Your task to perform on an android device: toggle pop-ups in chrome Image 0: 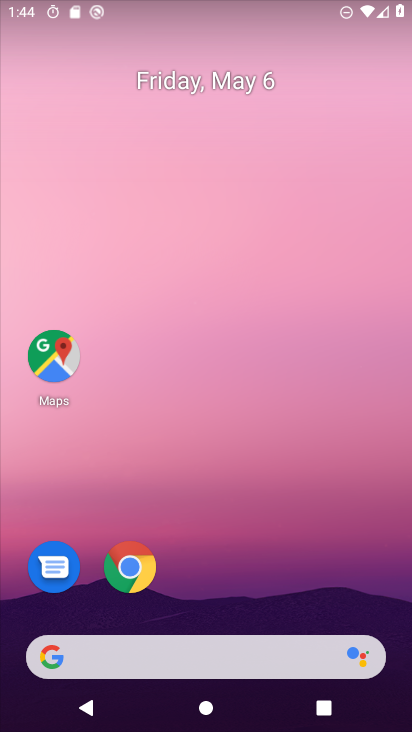
Step 0: click (138, 573)
Your task to perform on an android device: toggle pop-ups in chrome Image 1: 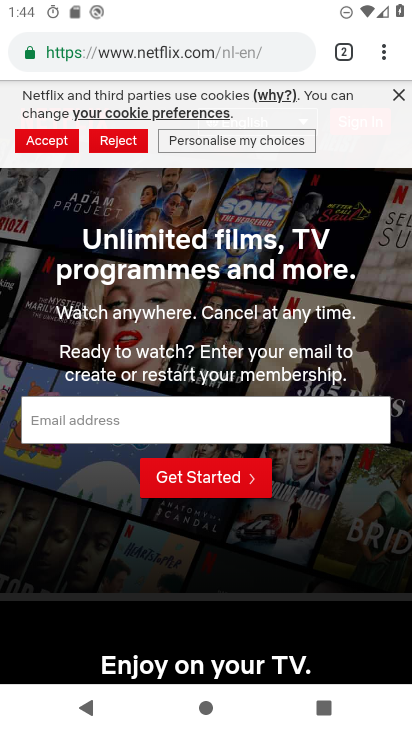
Step 1: click (387, 53)
Your task to perform on an android device: toggle pop-ups in chrome Image 2: 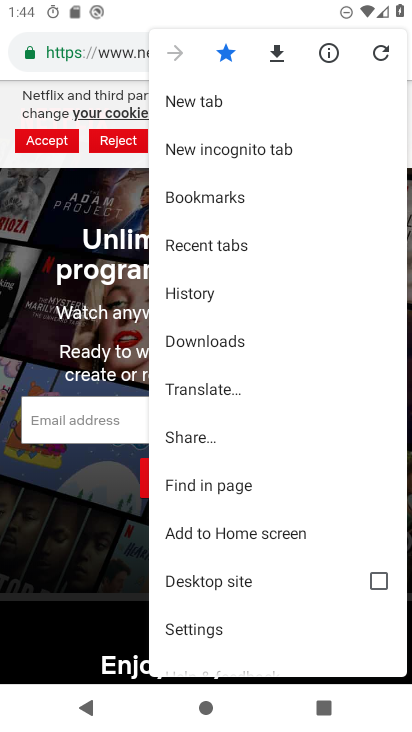
Step 2: click (206, 634)
Your task to perform on an android device: toggle pop-ups in chrome Image 3: 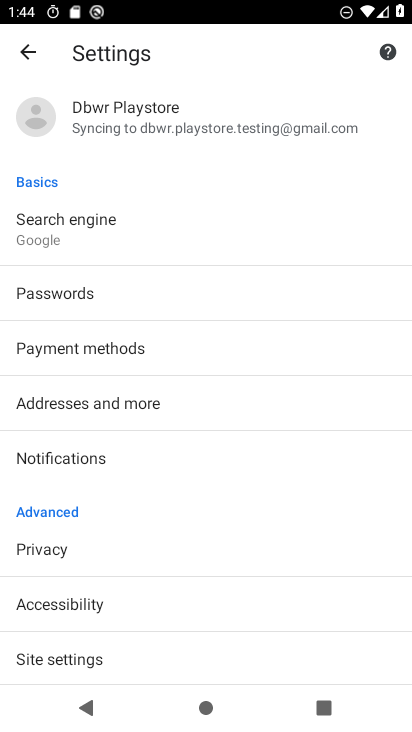
Step 3: drag from (162, 625) to (170, 407)
Your task to perform on an android device: toggle pop-ups in chrome Image 4: 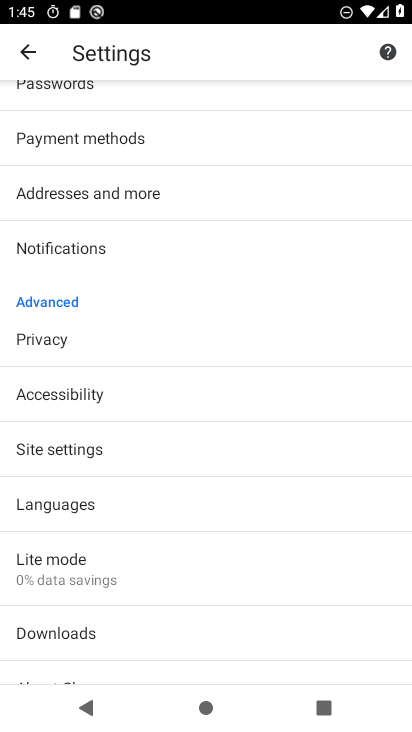
Step 4: click (58, 455)
Your task to perform on an android device: toggle pop-ups in chrome Image 5: 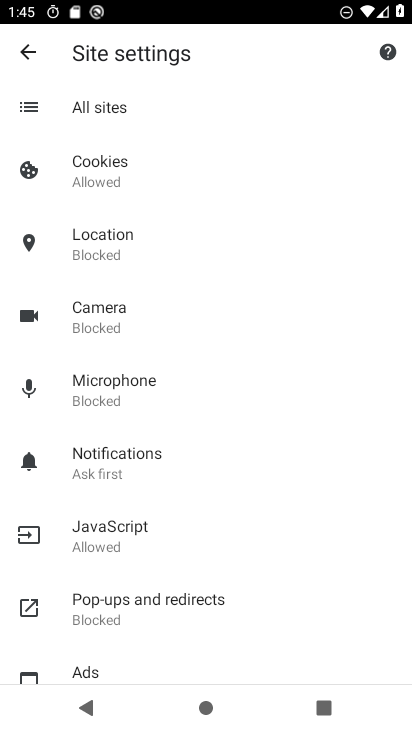
Step 5: click (99, 610)
Your task to perform on an android device: toggle pop-ups in chrome Image 6: 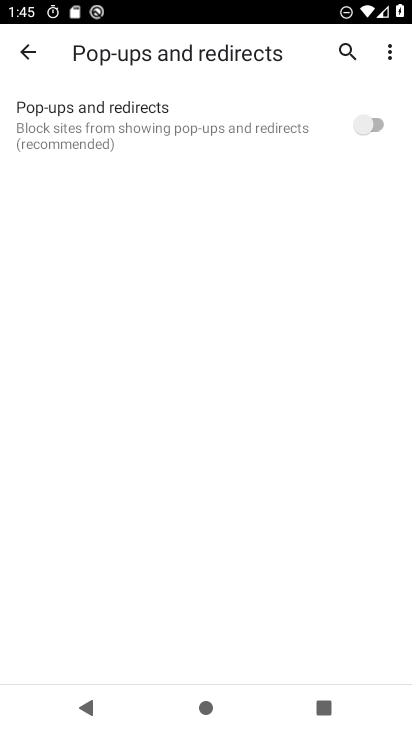
Step 6: click (358, 117)
Your task to perform on an android device: toggle pop-ups in chrome Image 7: 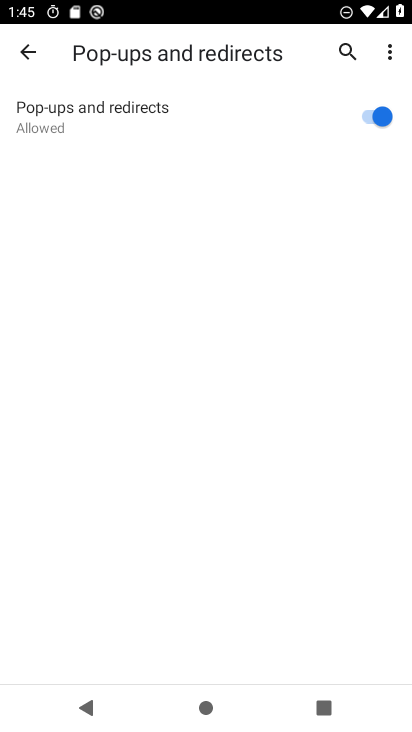
Step 7: task complete